Your task to perform on an android device: find photos in the google photos app Image 0: 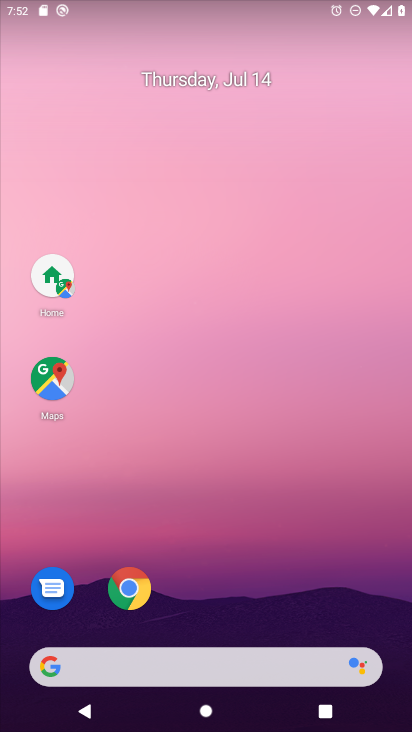
Step 0: drag from (142, 406) to (183, 202)
Your task to perform on an android device: find photos in the google photos app Image 1: 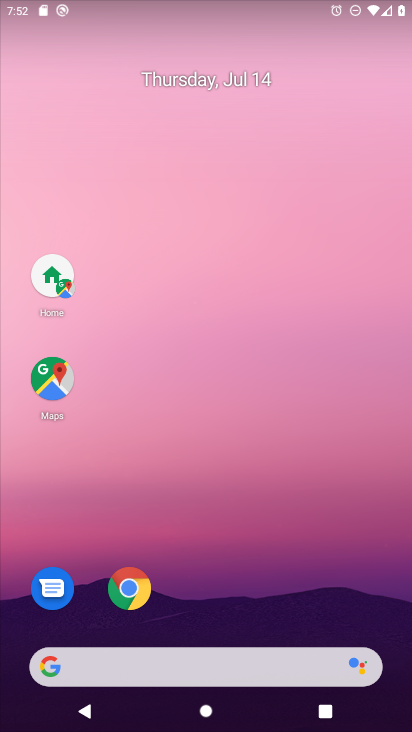
Step 1: drag from (160, 386) to (253, 49)
Your task to perform on an android device: find photos in the google photos app Image 2: 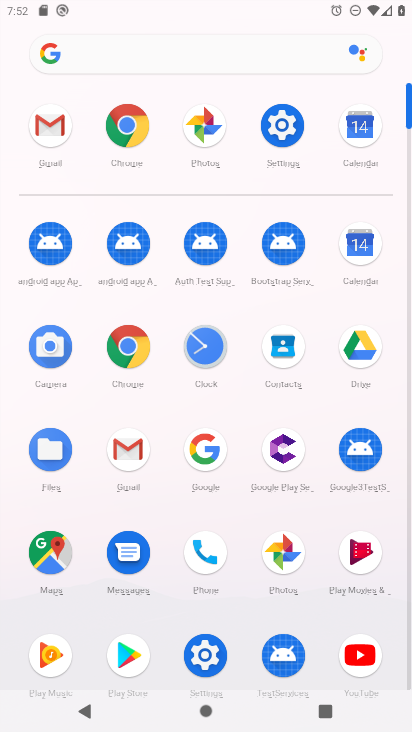
Step 2: click (279, 545)
Your task to perform on an android device: find photos in the google photos app Image 3: 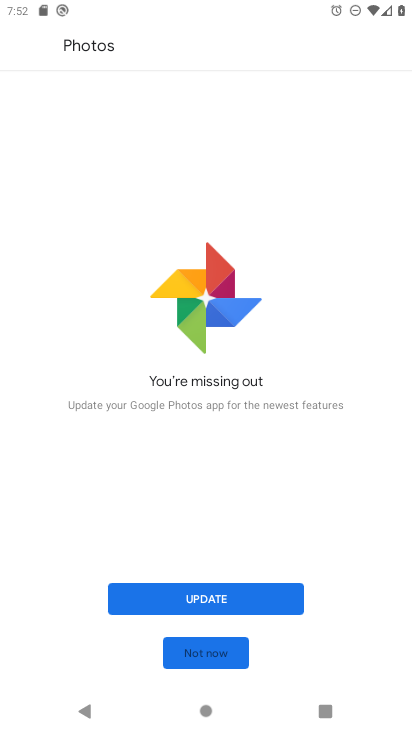
Step 3: click (185, 649)
Your task to perform on an android device: find photos in the google photos app Image 4: 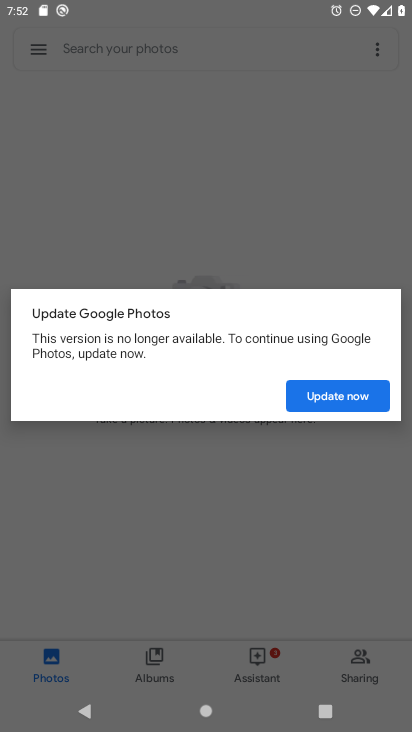
Step 4: click (345, 382)
Your task to perform on an android device: find photos in the google photos app Image 5: 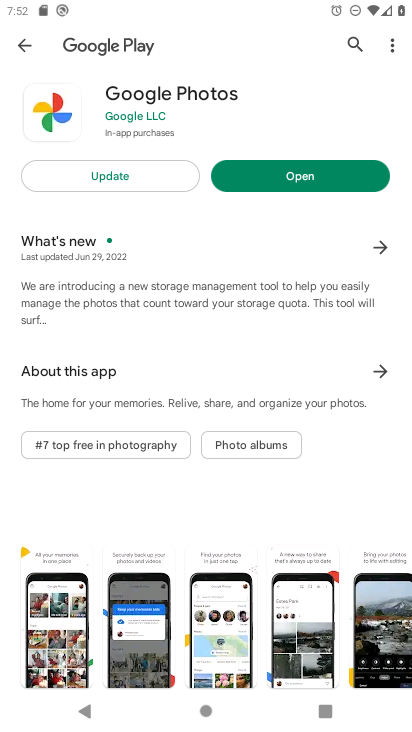
Step 5: click (288, 176)
Your task to perform on an android device: find photos in the google photos app Image 6: 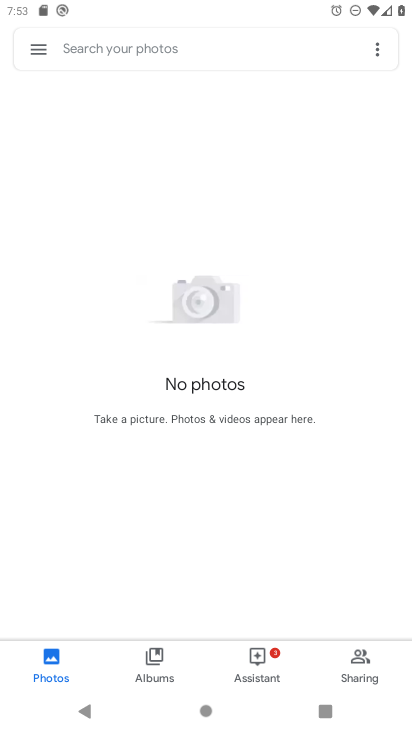
Step 6: task complete